Your task to perform on an android device: Open calendar and show me the second week of next month Image 0: 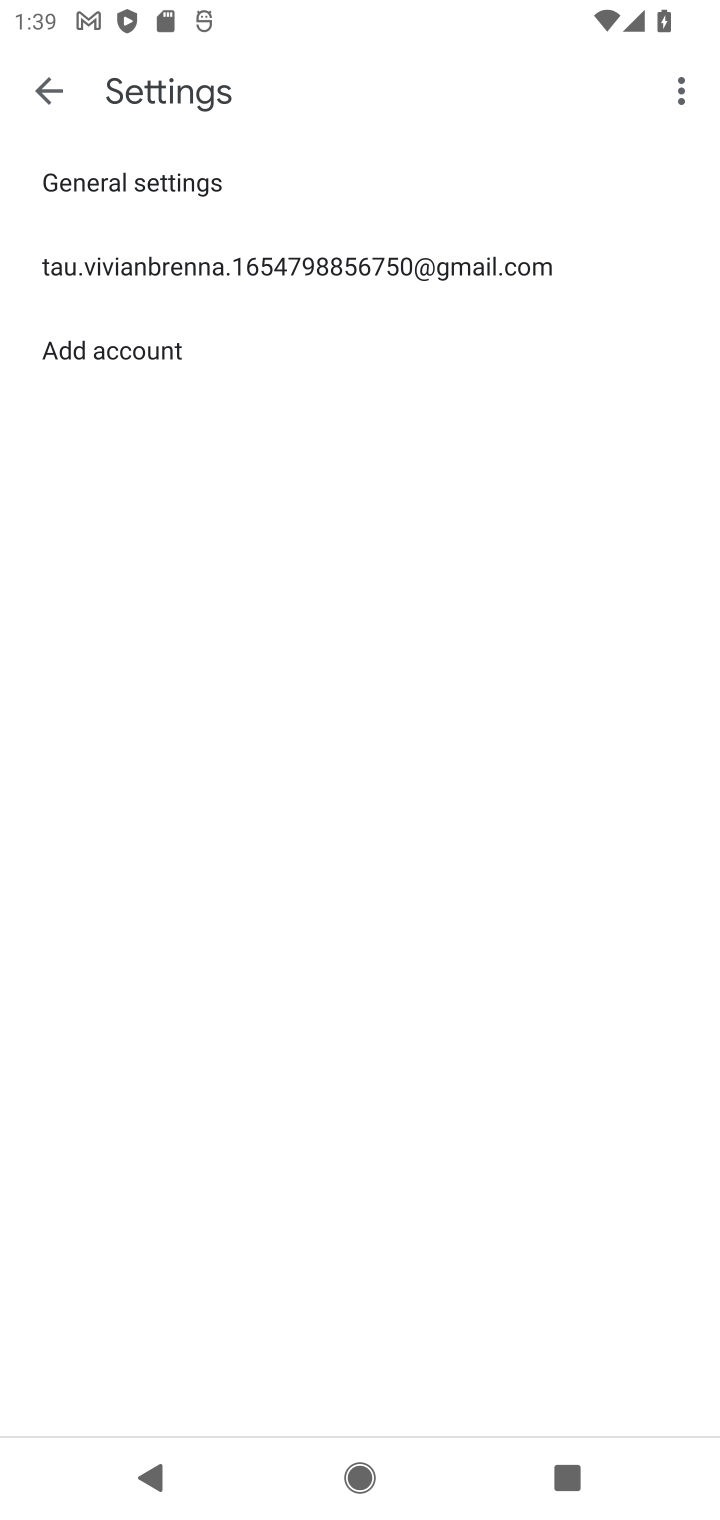
Step 0: press home button
Your task to perform on an android device: Open calendar and show me the second week of next month Image 1: 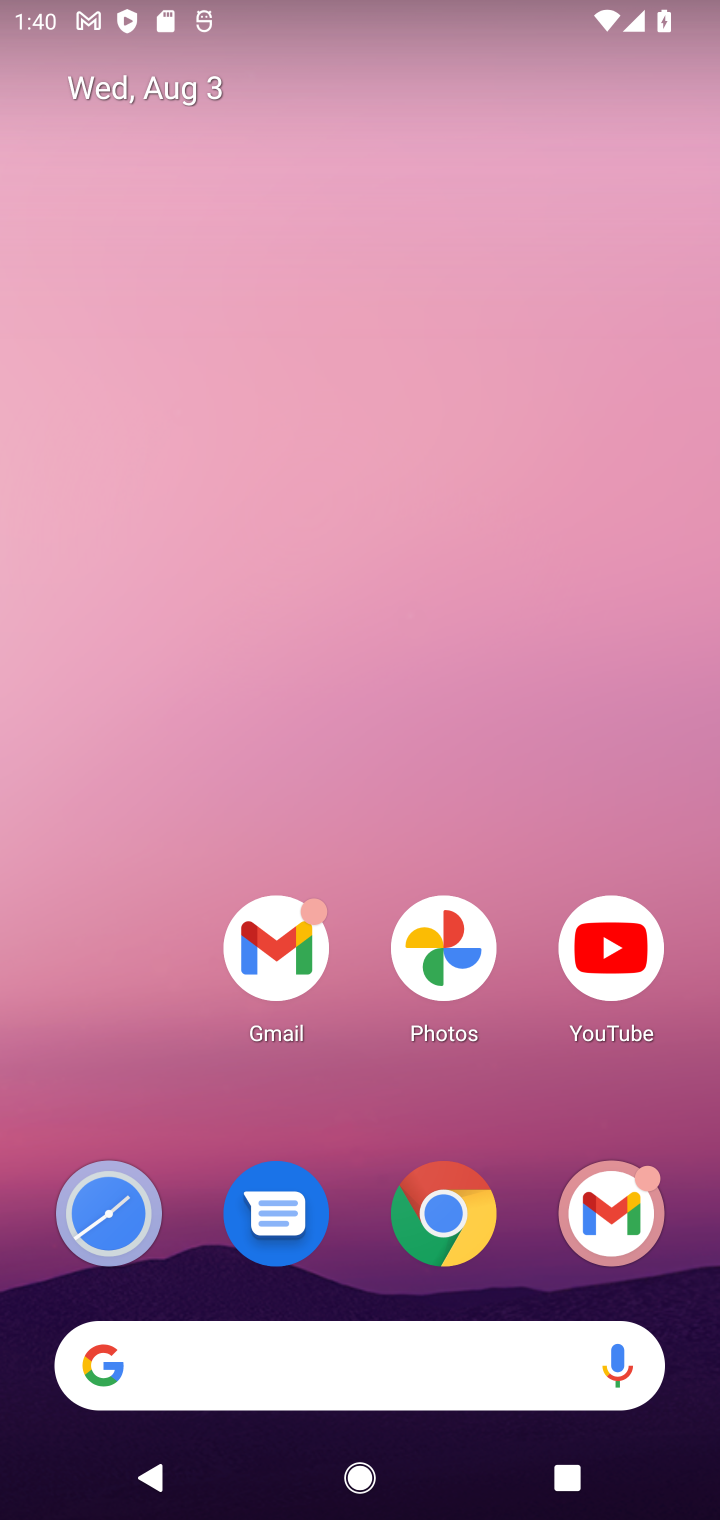
Step 1: drag from (487, 1246) to (637, 15)
Your task to perform on an android device: Open calendar and show me the second week of next month Image 2: 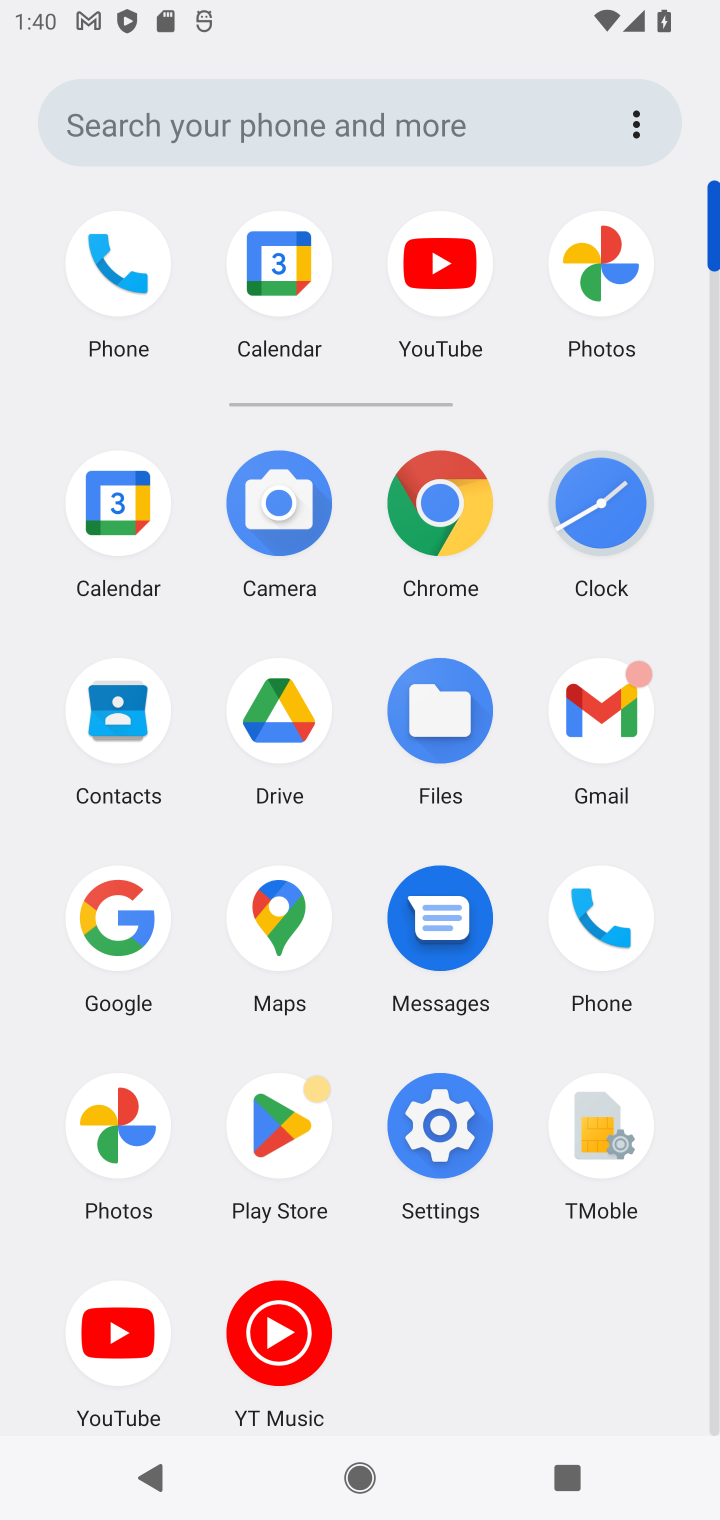
Step 2: click (115, 496)
Your task to perform on an android device: Open calendar and show me the second week of next month Image 3: 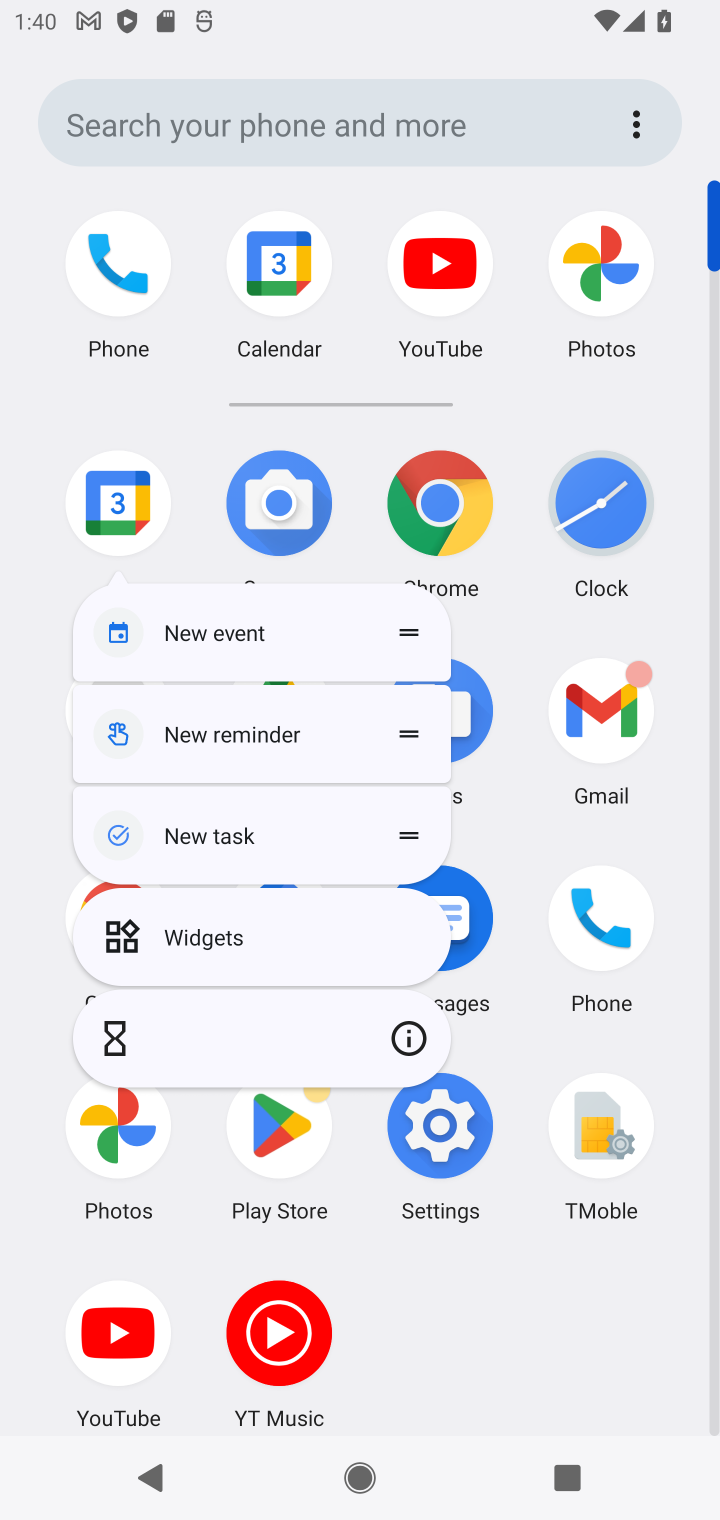
Step 3: click (115, 496)
Your task to perform on an android device: Open calendar and show me the second week of next month Image 4: 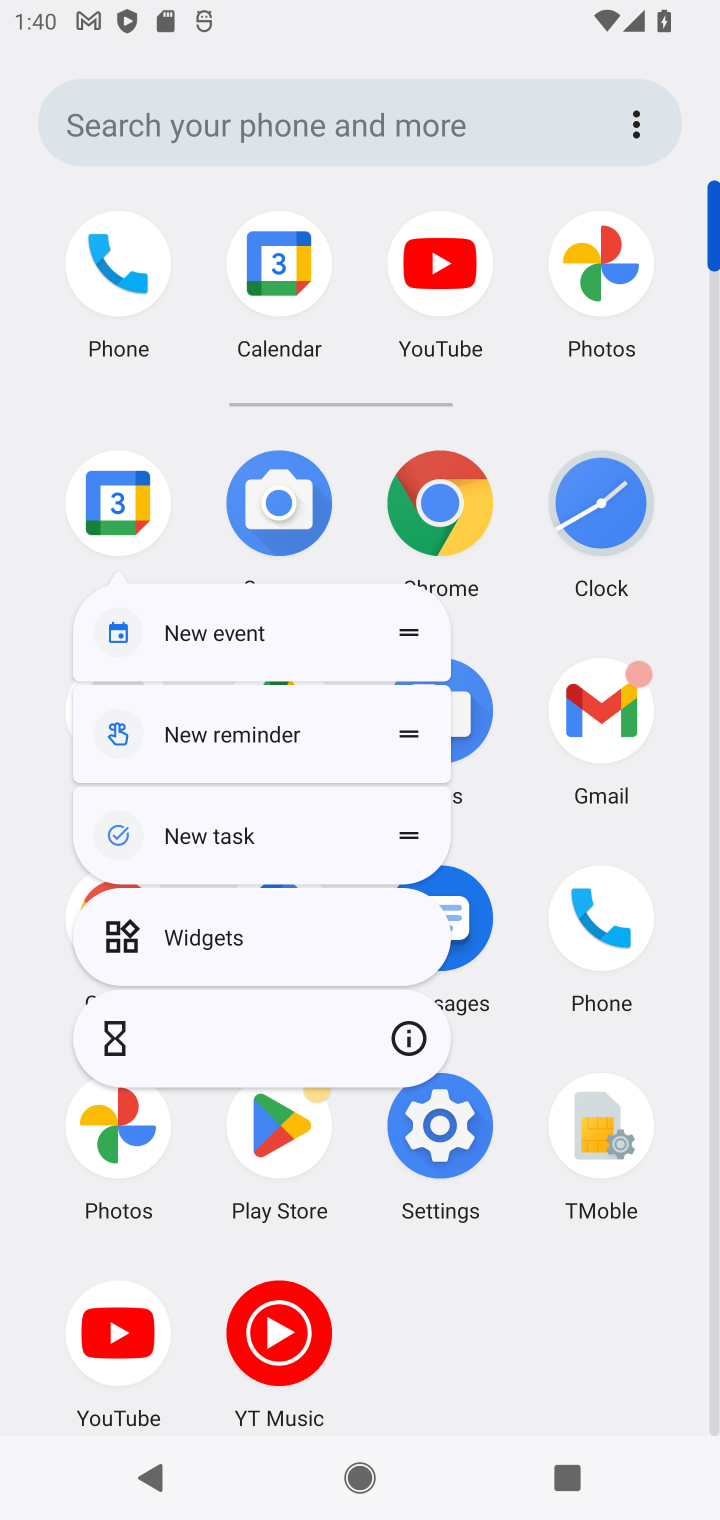
Step 4: click (115, 496)
Your task to perform on an android device: Open calendar and show me the second week of next month Image 5: 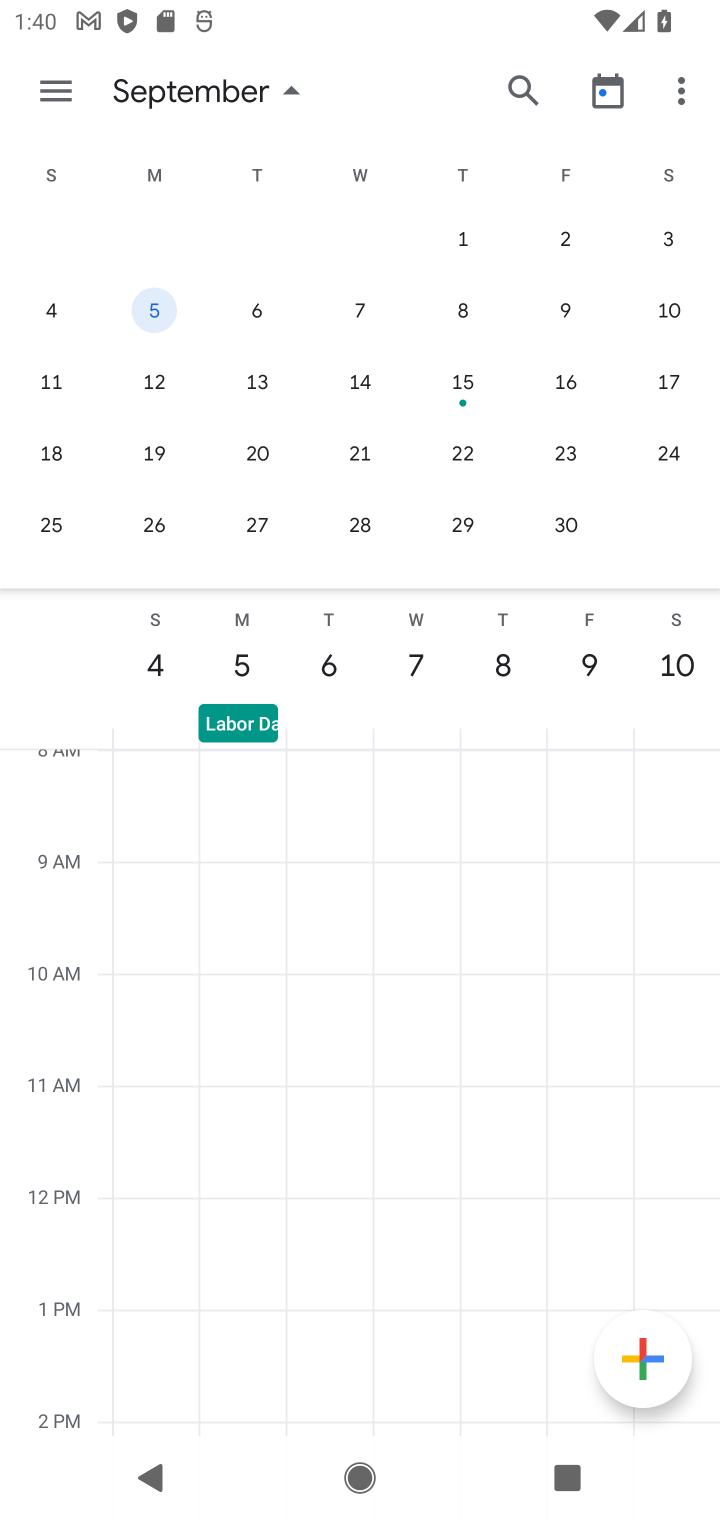
Step 5: click (364, 313)
Your task to perform on an android device: Open calendar and show me the second week of next month Image 6: 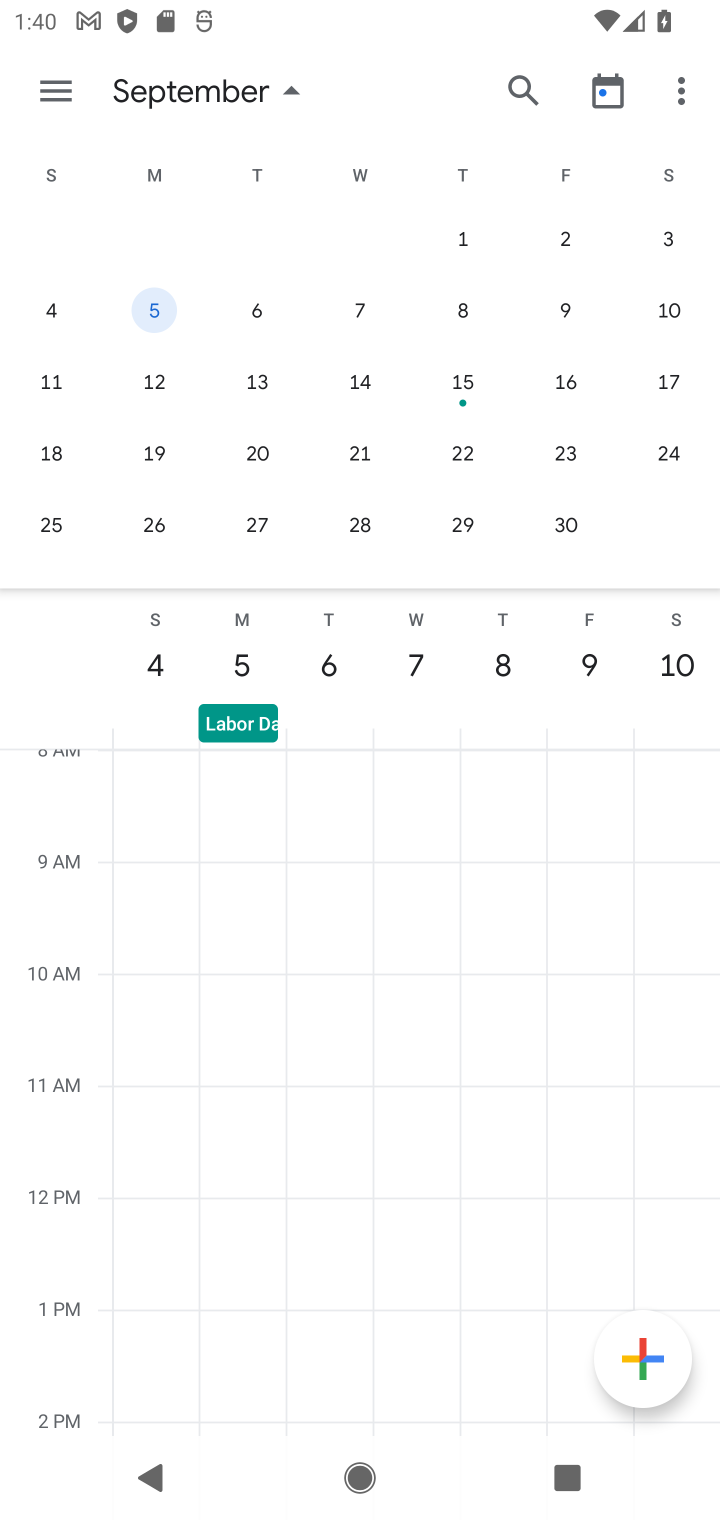
Step 6: click (358, 303)
Your task to perform on an android device: Open calendar and show me the second week of next month Image 7: 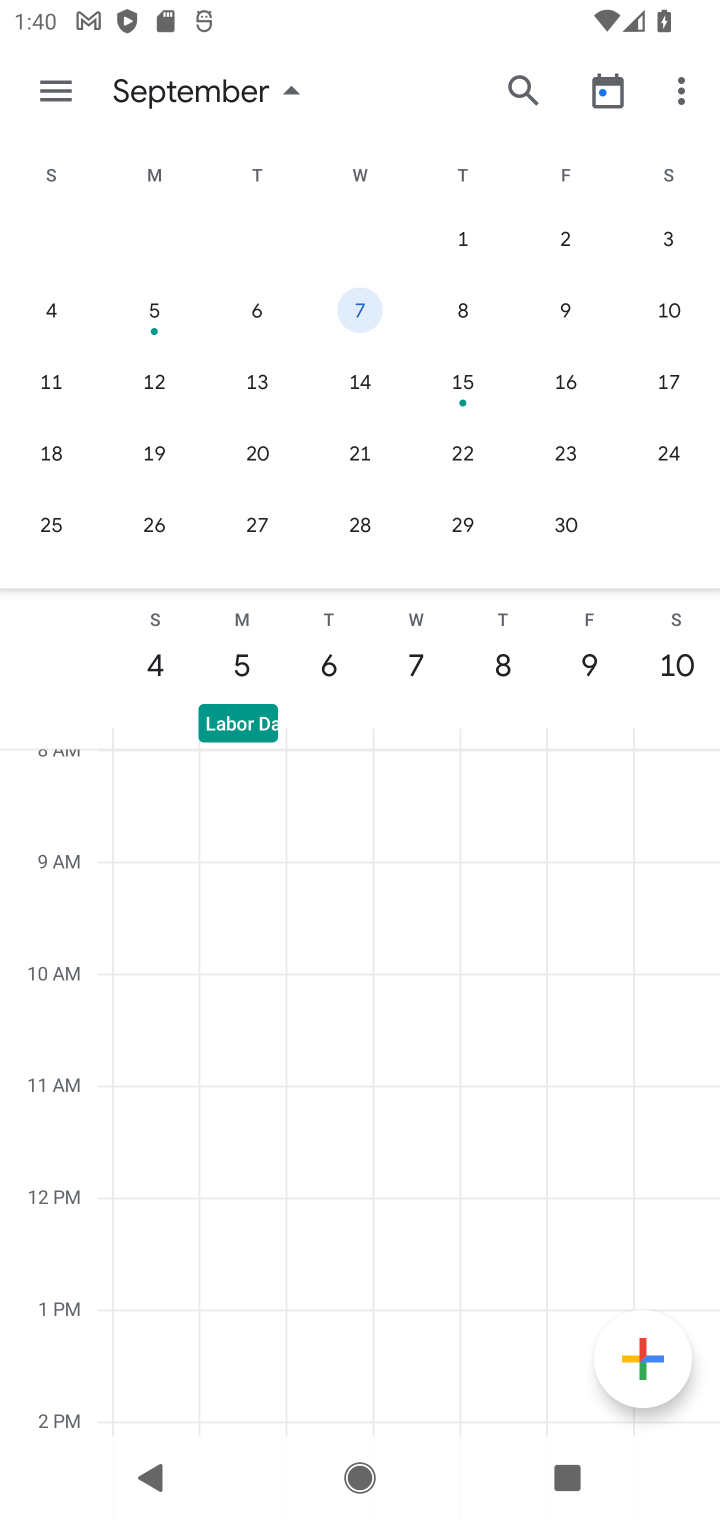
Step 7: task complete